Your task to perform on an android device: Go to Wikipedia Image 0: 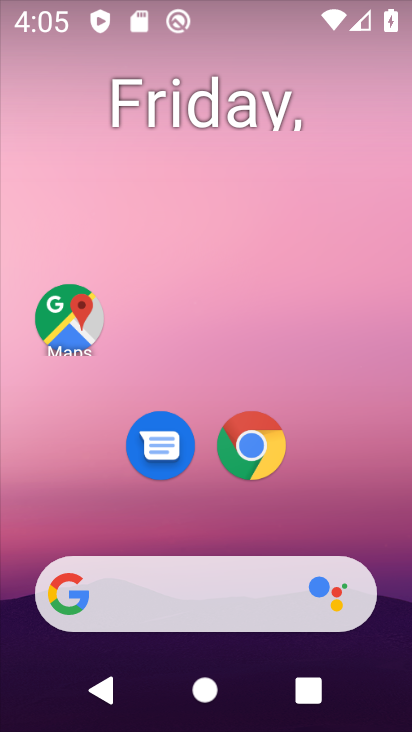
Step 0: press home button
Your task to perform on an android device: Go to Wikipedia Image 1: 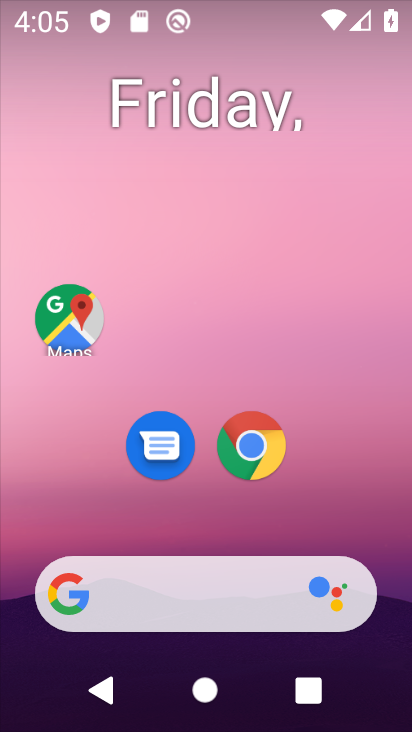
Step 1: click (56, 585)
Your task to perform on an android device: Go to Wikipedia Image 2: 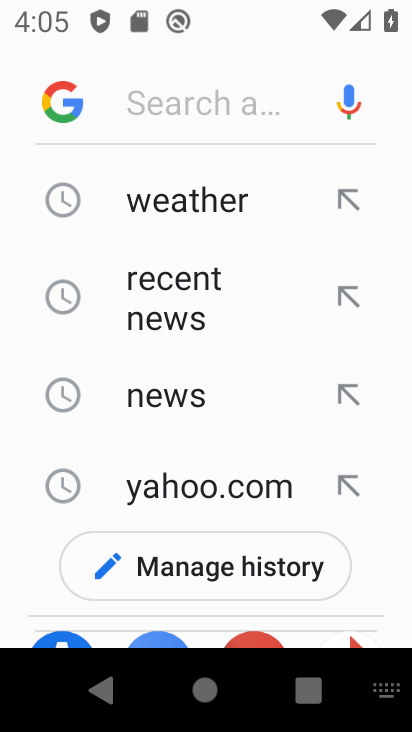
Step 2: type "wikipedia"
Your task to perform on an android device: Go to Wikipedia Image 3: 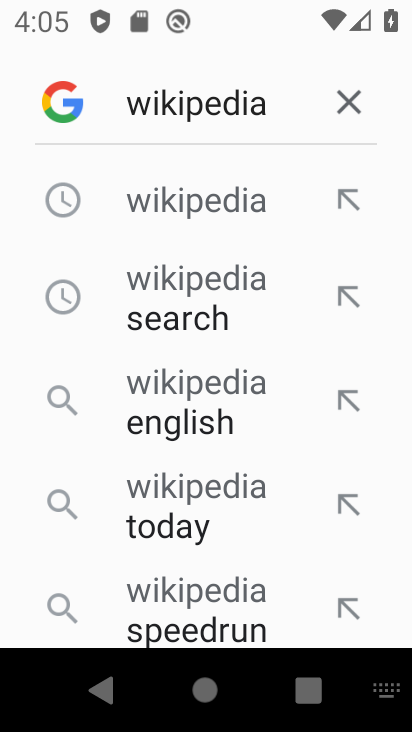
Step 3: click (238, 217)
Your task to perform on an android device: Go to Wikipedia Image 4: 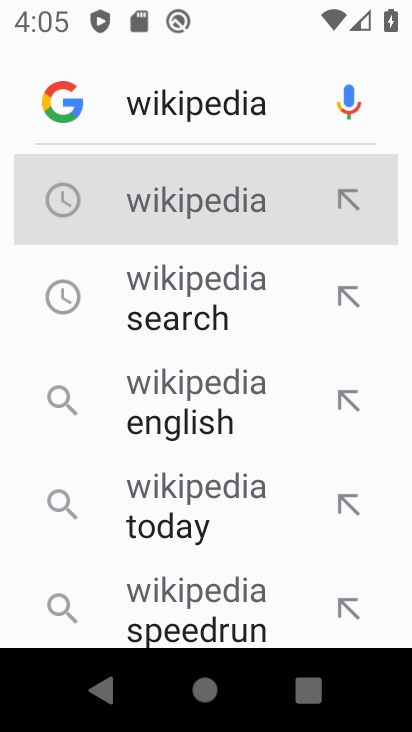
Step 4: click (214, 195)
Your task to perform on an android device: Go to Wikipedia Image 5: 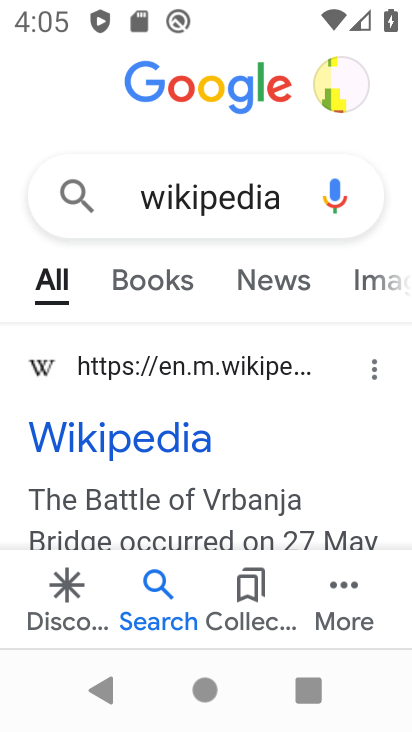
Step 5: click (110, 441)
Your task to perform on an android device: Go to Wikipedia Image 6: 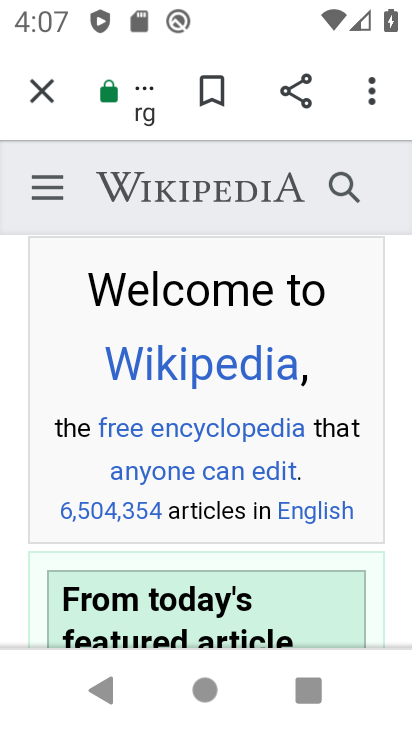
Step 6: task complete